Your task to perform on an android device: Open Chrome and go to the settings page Image 0: 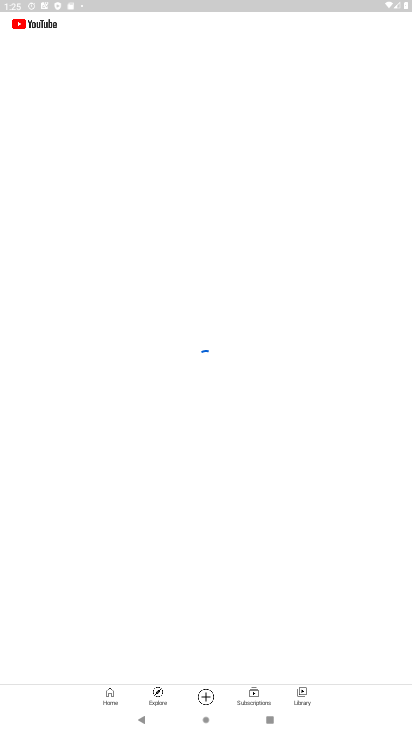
Step 0: press home button
Your task to perform on an android device: Open Chrome and go to the settings page Image 1: 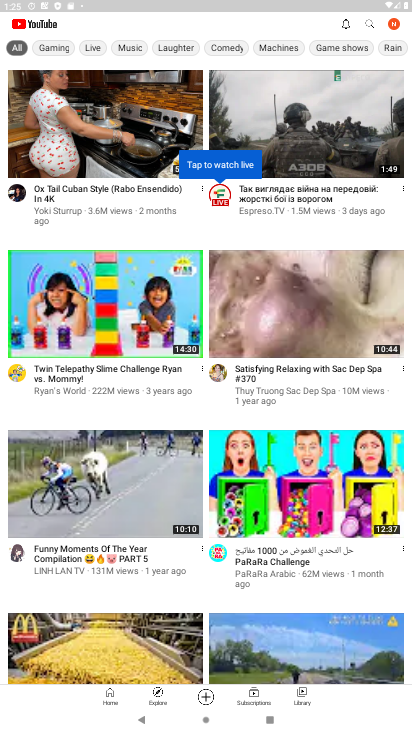
Step 1: drag from (273, 630) to (254, 8)
Your task to perform on an android device: Open Chrome and go to the settings page Image 2: 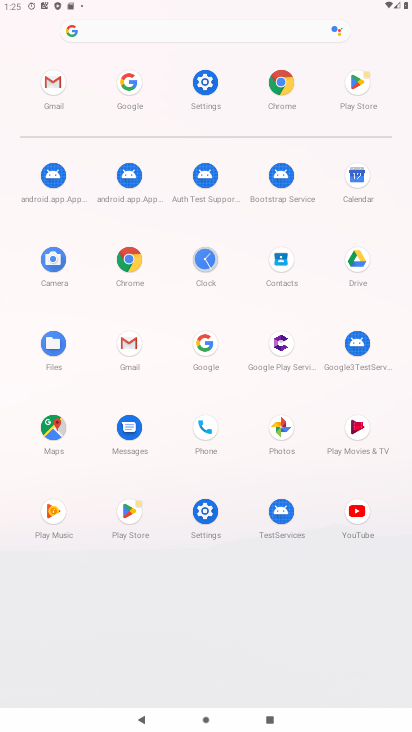
Step 2: click (278, 84)
Your task to perform on an android device: Open Chrome and go to the settings page Image 3: 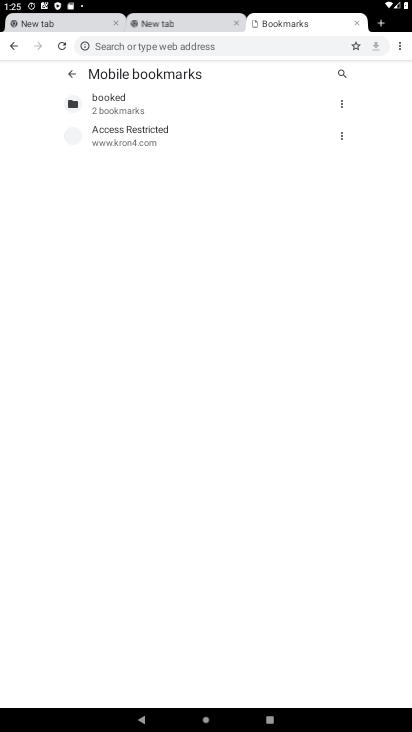
Step 3: click (395, 45)
Your task to perform on an android device: Open Chrome and go to the settings page Image 4: 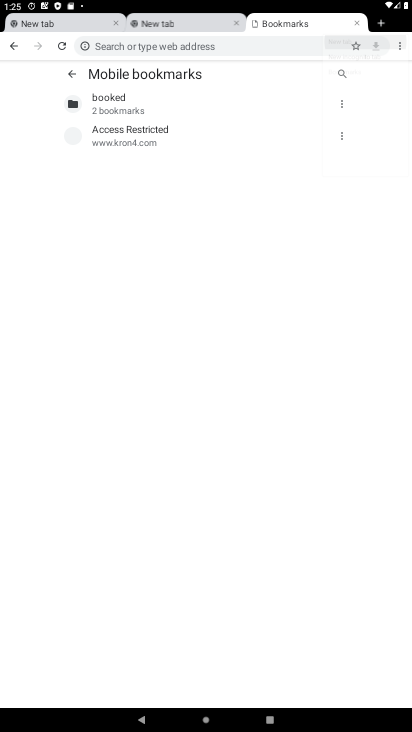
Step 4: click (396, 45)
Your task to perform on an android device: Open Chrome and go to the settings page Image 5: 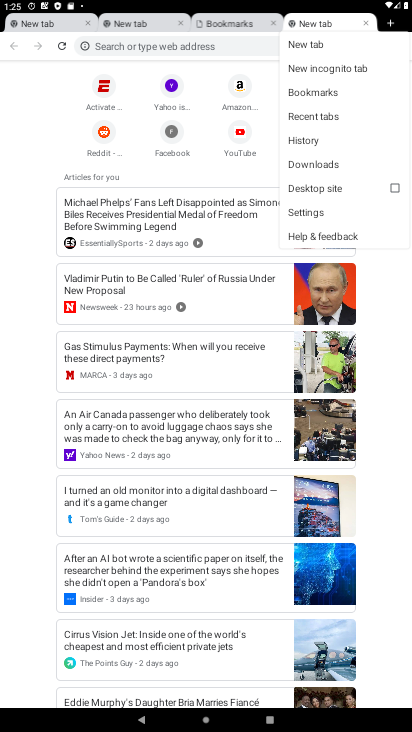
Step 5: click (305, 222)
Your task to perform on an android device: Open Chrome and go to the settings page Image 6: 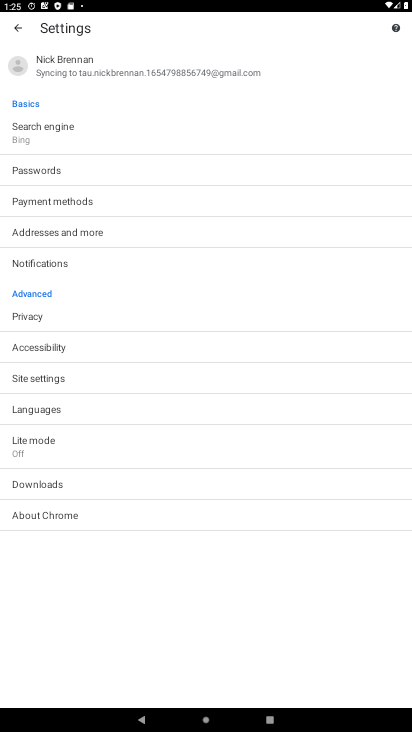
Step 6: task complete